Your task to perform on an android device: Open Google Maps Image 0: 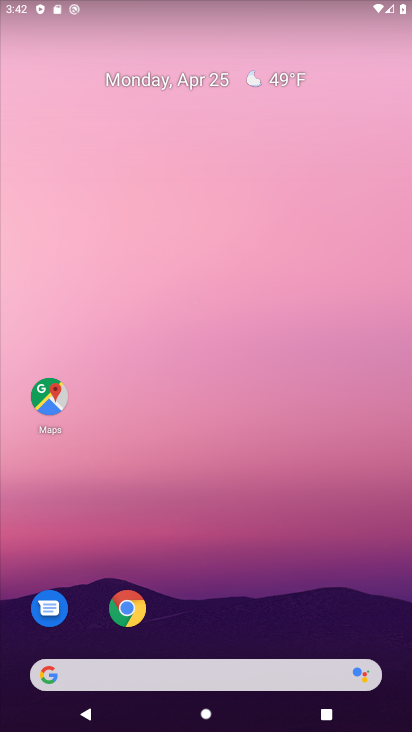
Step 0: drag from (306, 618) to (281, 315)
Your task to perform on an android device: Open Google Maps Image 1: 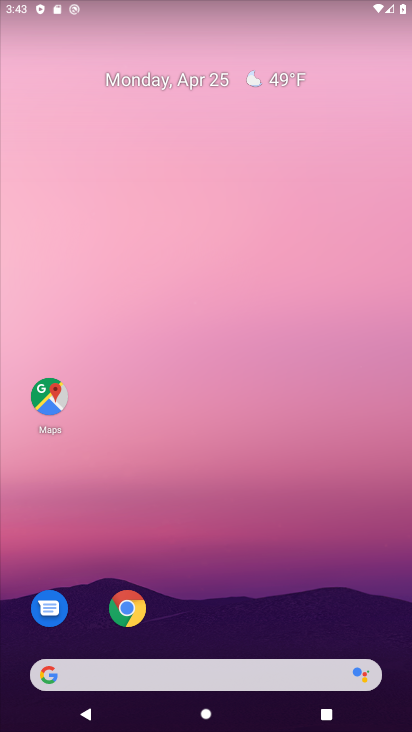
Step 1: drag from (211, 564) to (184, 247)
Your task to perform on an android device: Open Google Maps Image 2: 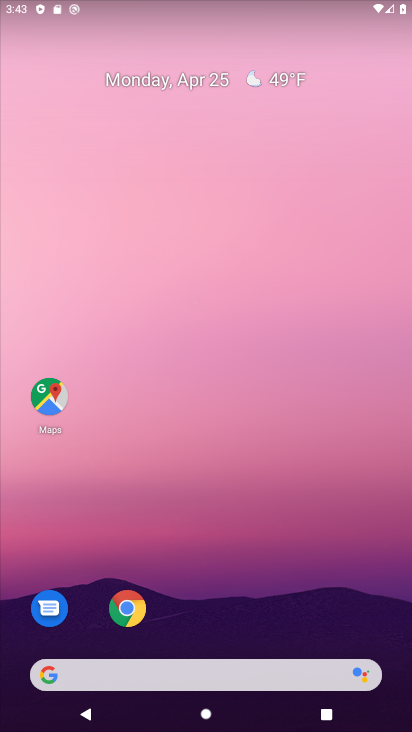
Step 2: drag from (204, 563) to (209, 292)
Your task to perform on an android device: Open Google Maps Image 3: 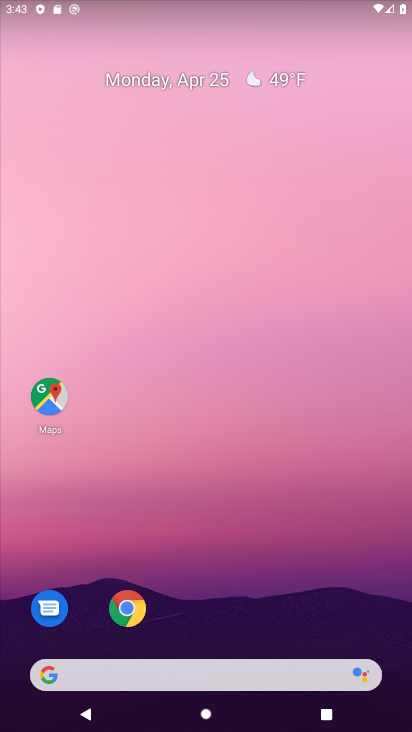
Step 3: drag from (206, 557) to (220, 263)
Your task to perform on an android device: Open Google Maps Image 4: 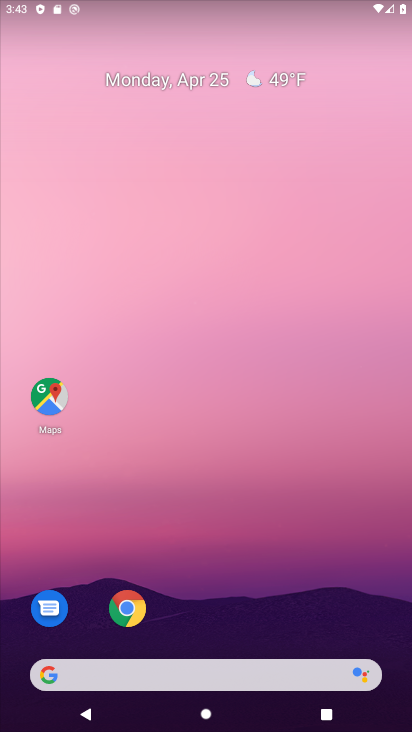
Step 4: drag from (247, 511) to (247, 262)
Your task to perform on an android device: Open Google Maps Image 5: 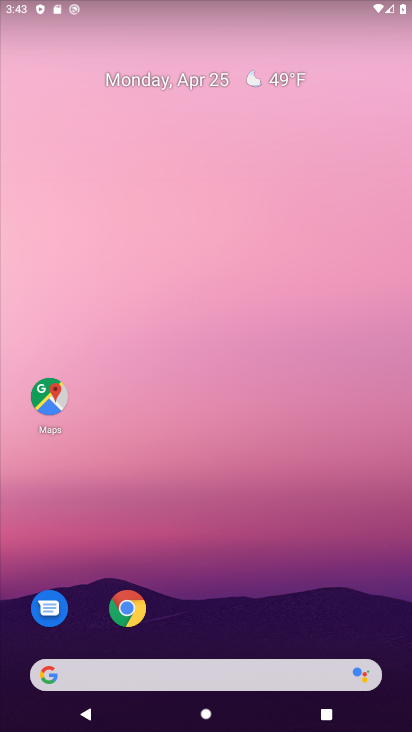
Step 5: drag from (225, 646) to (247, 261)
Your task to perform on an android device: Open Google Maps Image 6: 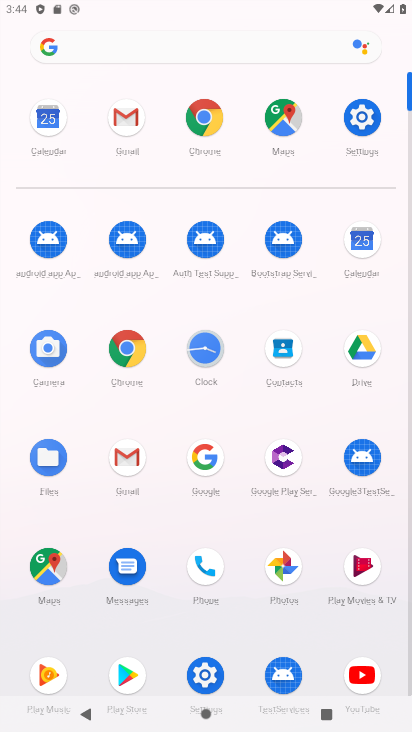
Step 6: click (61, 577)
Your task to perform on an android device: Open Google Maps Image 7: 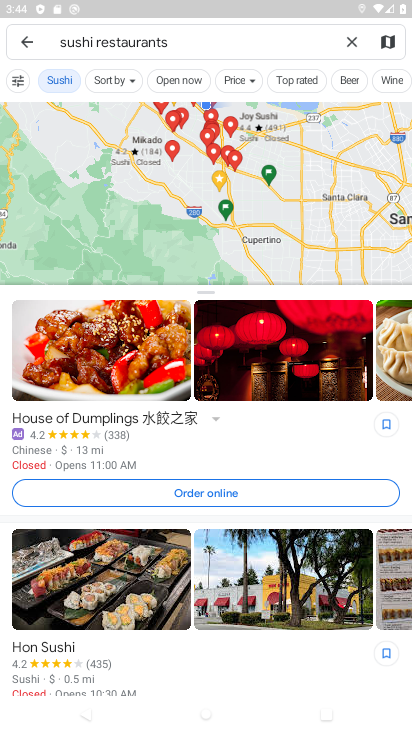
Step 7: task complete